Your task to perform on an android device: change the clock style Image 0: 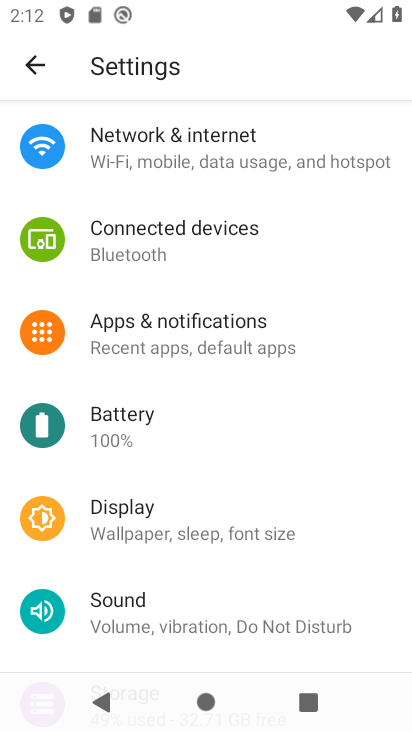
Step 0: press home button
Your task to perform on an android device: change the clock style Image 1: 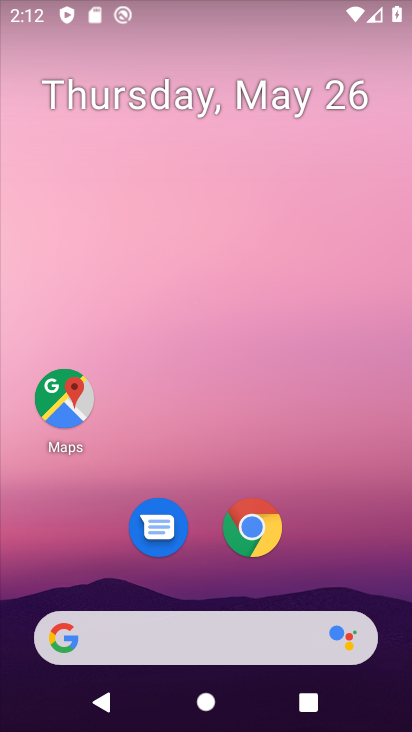
Step 1: drag from (172, 551) to (248, 7)
Your task to perform on an android device: change the clock style Image 2: 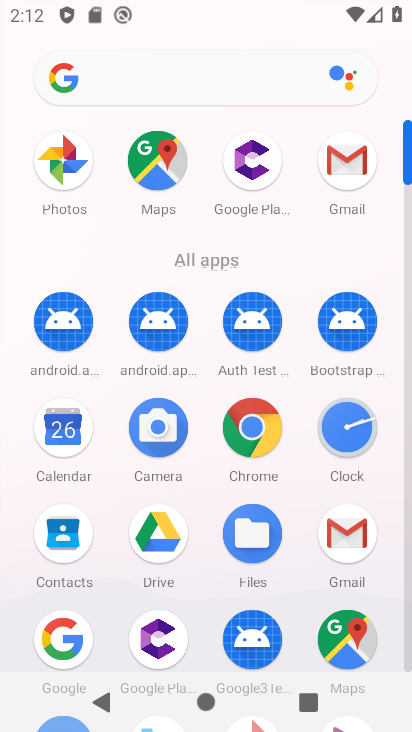
Step 2: click (340, 423)
Your task to perform on an android device: change the clock style Image 3: 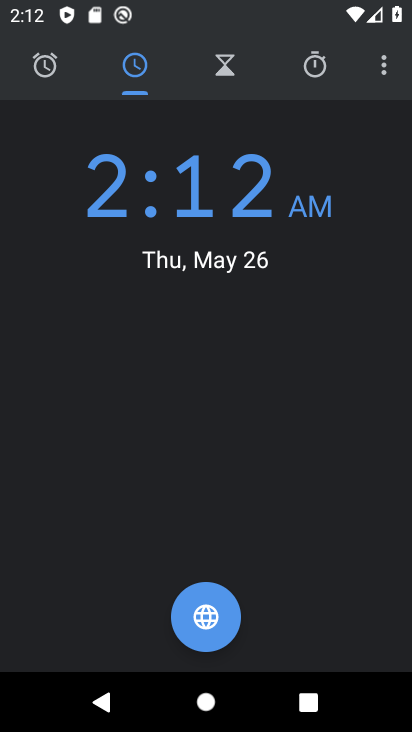
Step 3: click (385, 62)
Your task to perform on an android device: change the clock style Image 4: 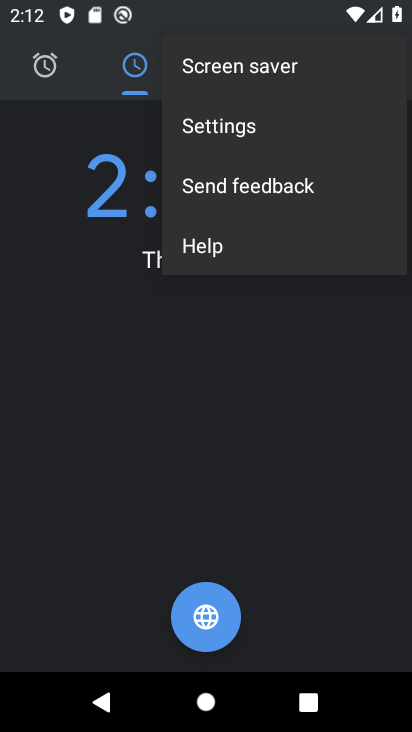
Step 4: click (212, 132)
Your task to perform on an android device: change the clock style Image 5: 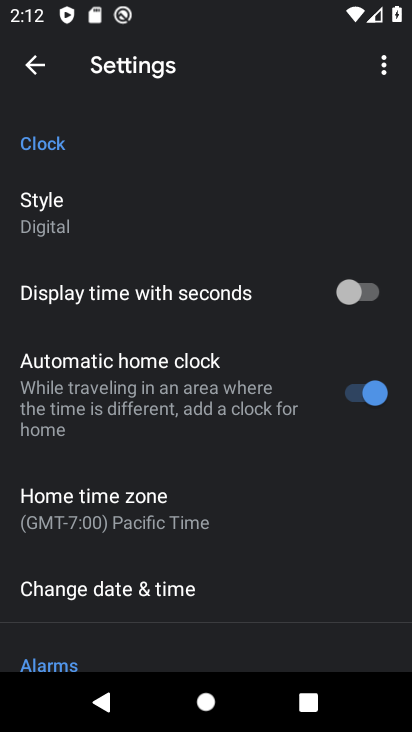
Step 5: click (94, 206)
Your task to perform on an android device: change the clock style Image 6: 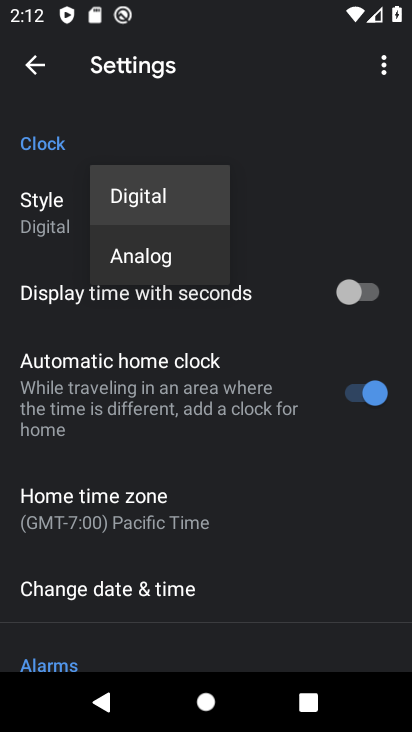
Step 6: click (142, 245)
Your task to perform on an android device: change the clock style Image 7: 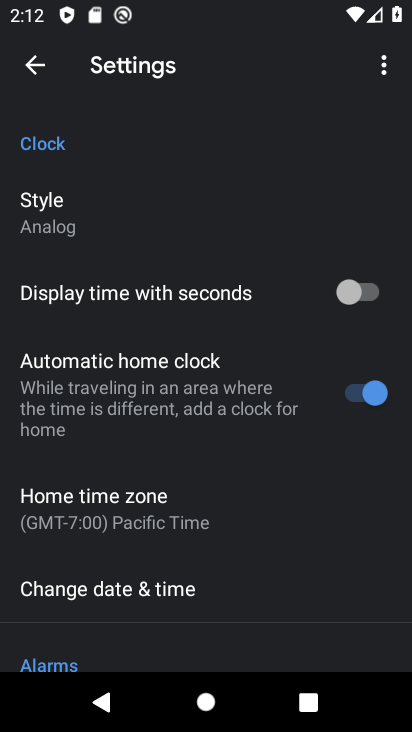
Step 7: task complete